Your task to perform on an android device: change notification settings in the gmail app Image 0: 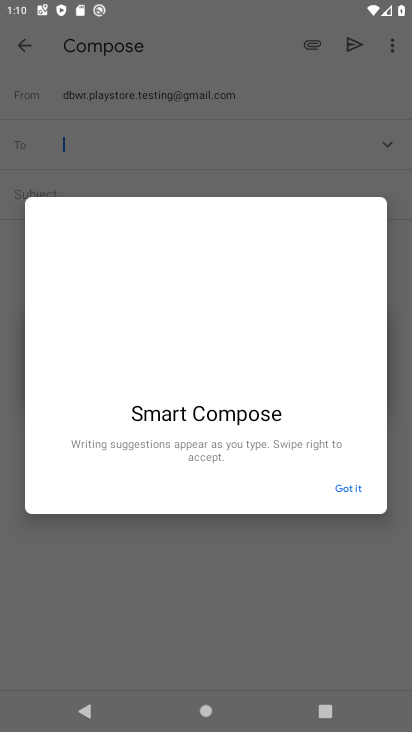
Step 0: press home button
Your task to perform on an android device: change notification settings in the gmail app Image 1: 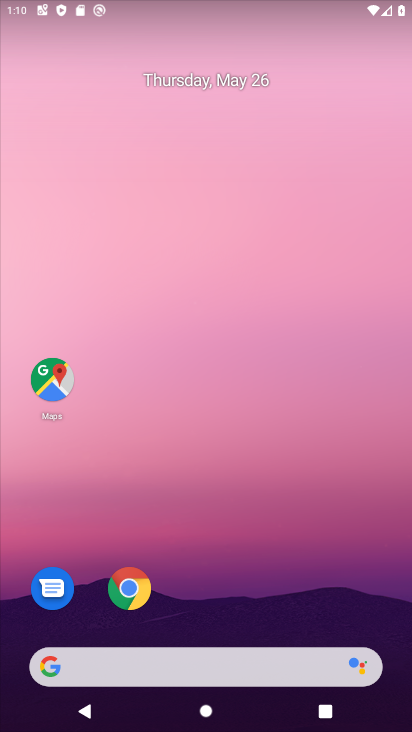
Step 1: drag from (385, 645) to (333, 254)
Your task to perform on an android device: change notification settings in the gmail app Image 2: 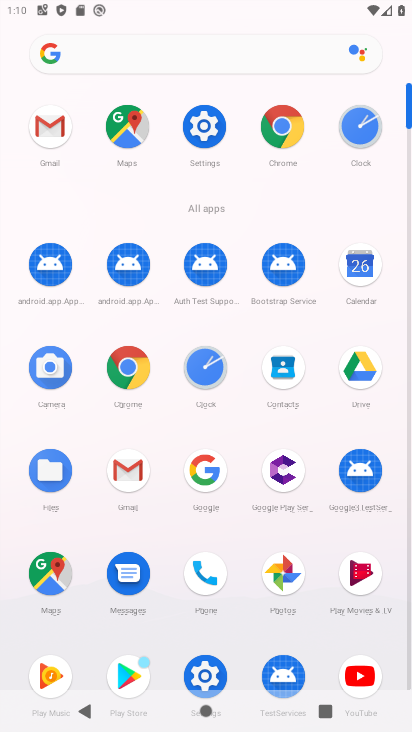
Step 2: click (119, 475)
Your task to perform on an android device: change notification settings in the gmail app Image 3: 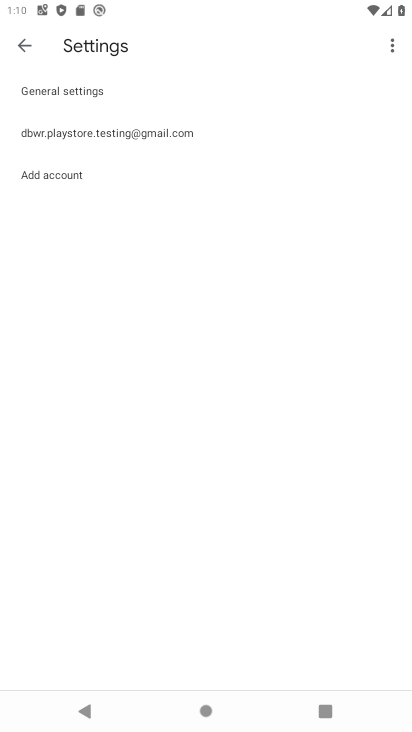
Step 3: click (70, 86)
Your task to perform on an android device: change notification settings in the gmail app Image 4: 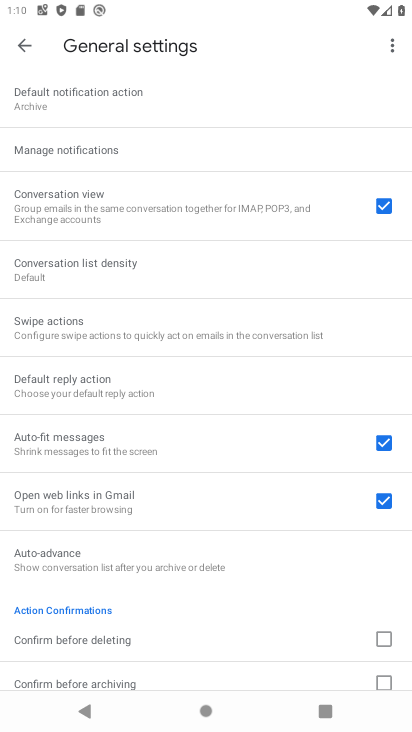
Step 4: click (61, 152)
Your task to perform on an android device: change notification settings in the gmail app Image 5: 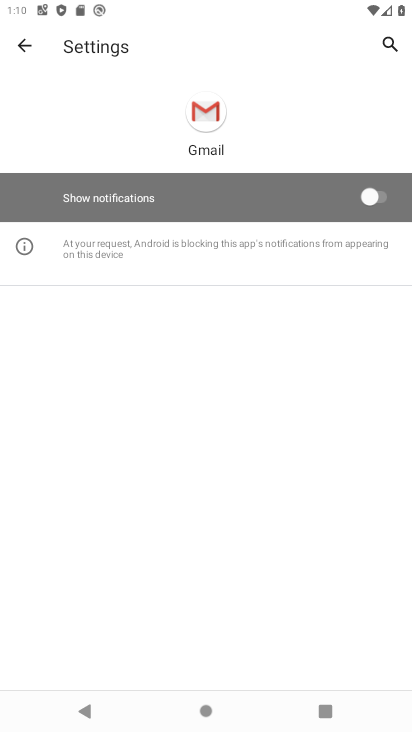
Step 5: click (379, 194)
Your task to perform on an android device: change notification settings in the gmail app Image 6: 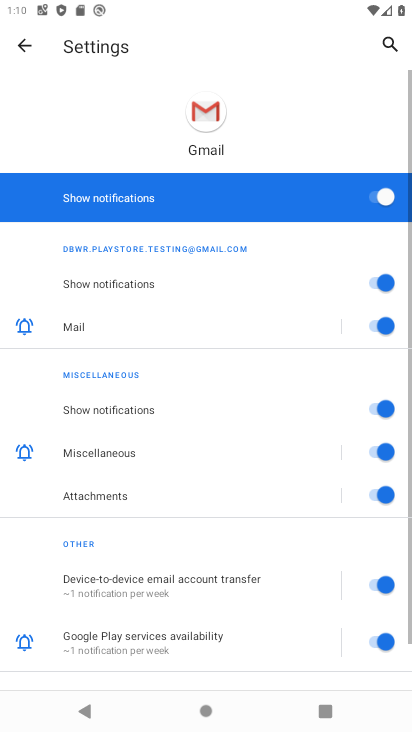
Step 6: task complete